Your task to perform on an android device: turn off sleep mode Image 0: 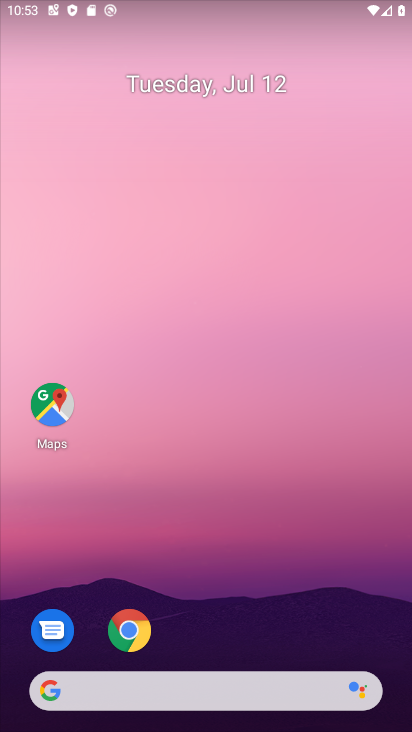
Step 0: drag from (321, 549) to (240, 78)
Your task to perform on an android device: turn off sleep mode Image 1: 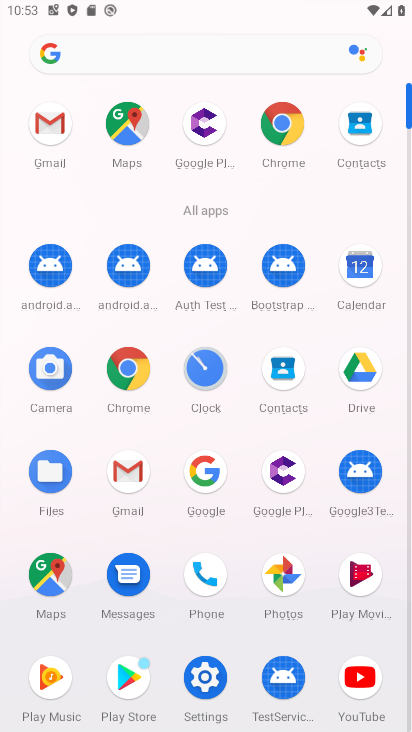
Step 1: click (206, 675)
Your task to perform on an android device: turn off sleep mode Image 2: 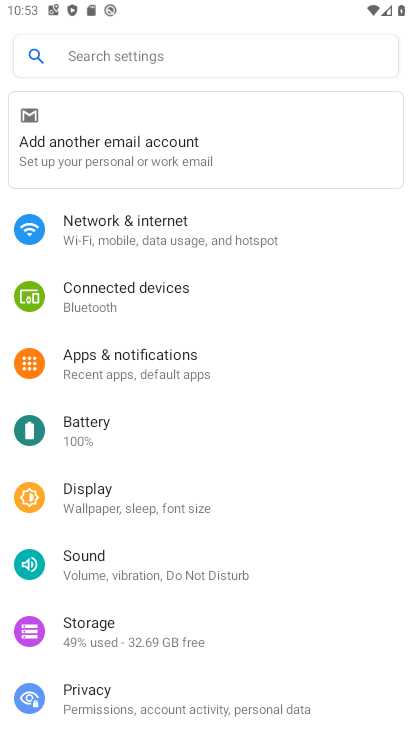
Step 2: click (99, 499)
Your task to perform on an android device: turn off sleep mode Image 3: 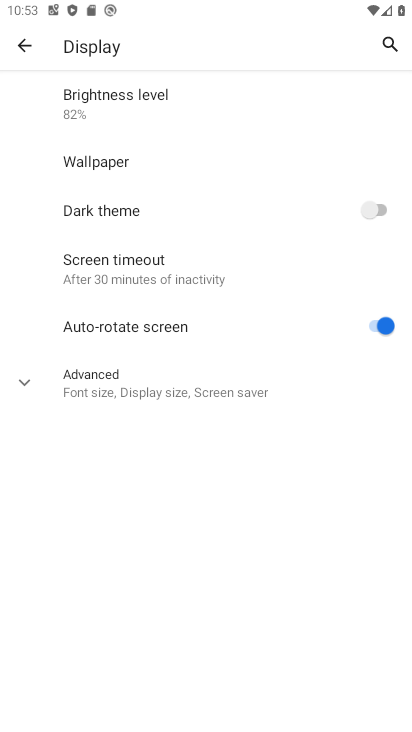
Step 3: click (166, 273)
Your task to perform on an android device: turn off sleep mode Image 4: 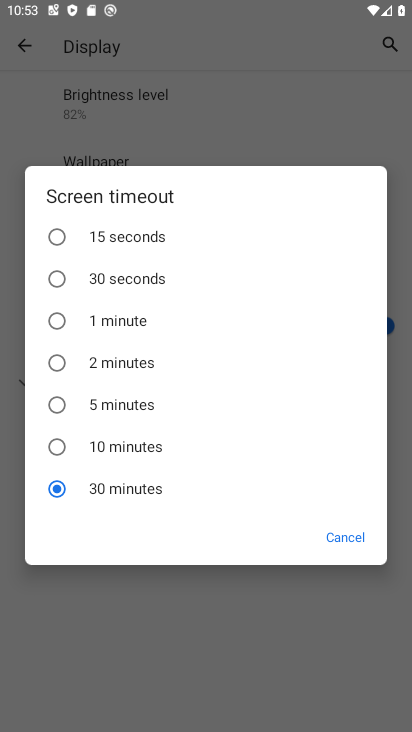
Step 4: task complete